Your task to perform on an android device: Clear all items from cart on walmart. Add "beats solo 3" to the cart on walmart, then select checkout. Image 0: 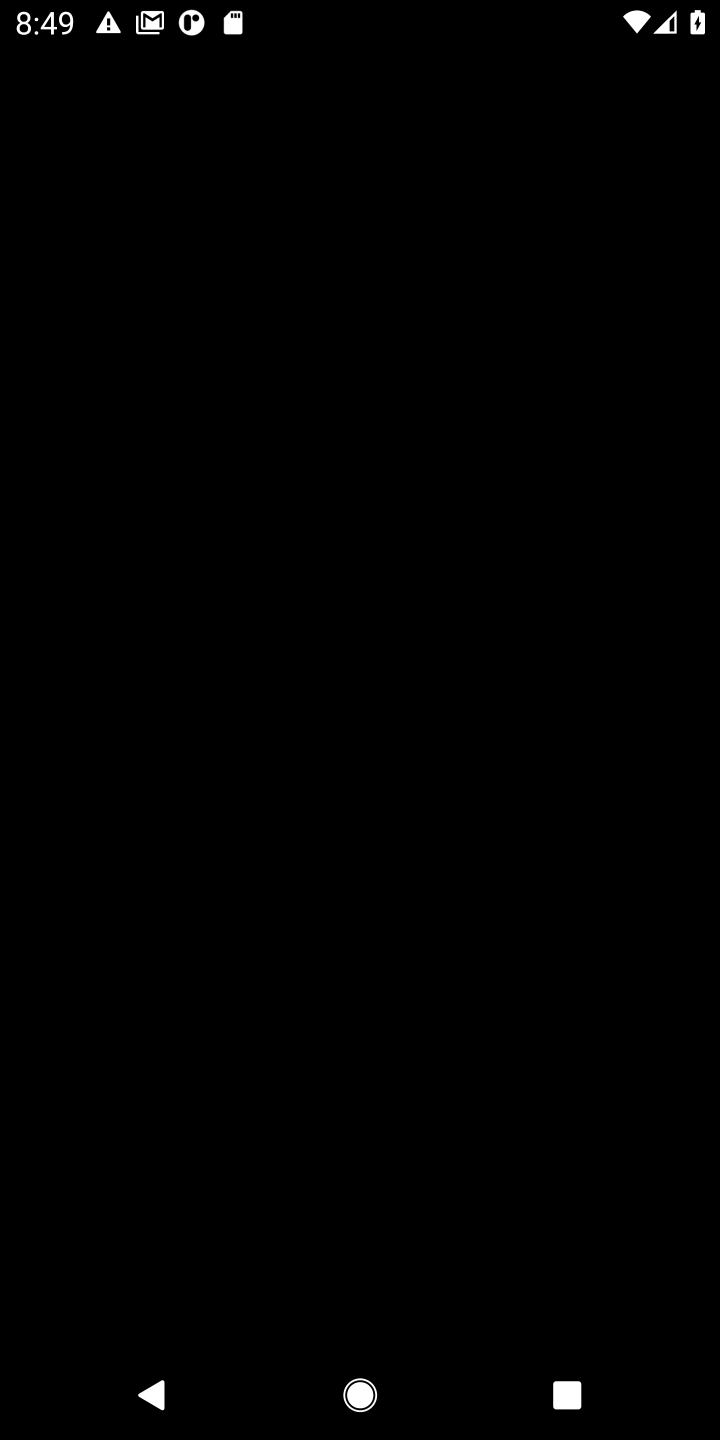
Step 0: press home button
Your task to perform on an android device: Clear all items from cart on walmart. Add "beats solo 3" to the cart on walmart, then select checkout. Image 1: 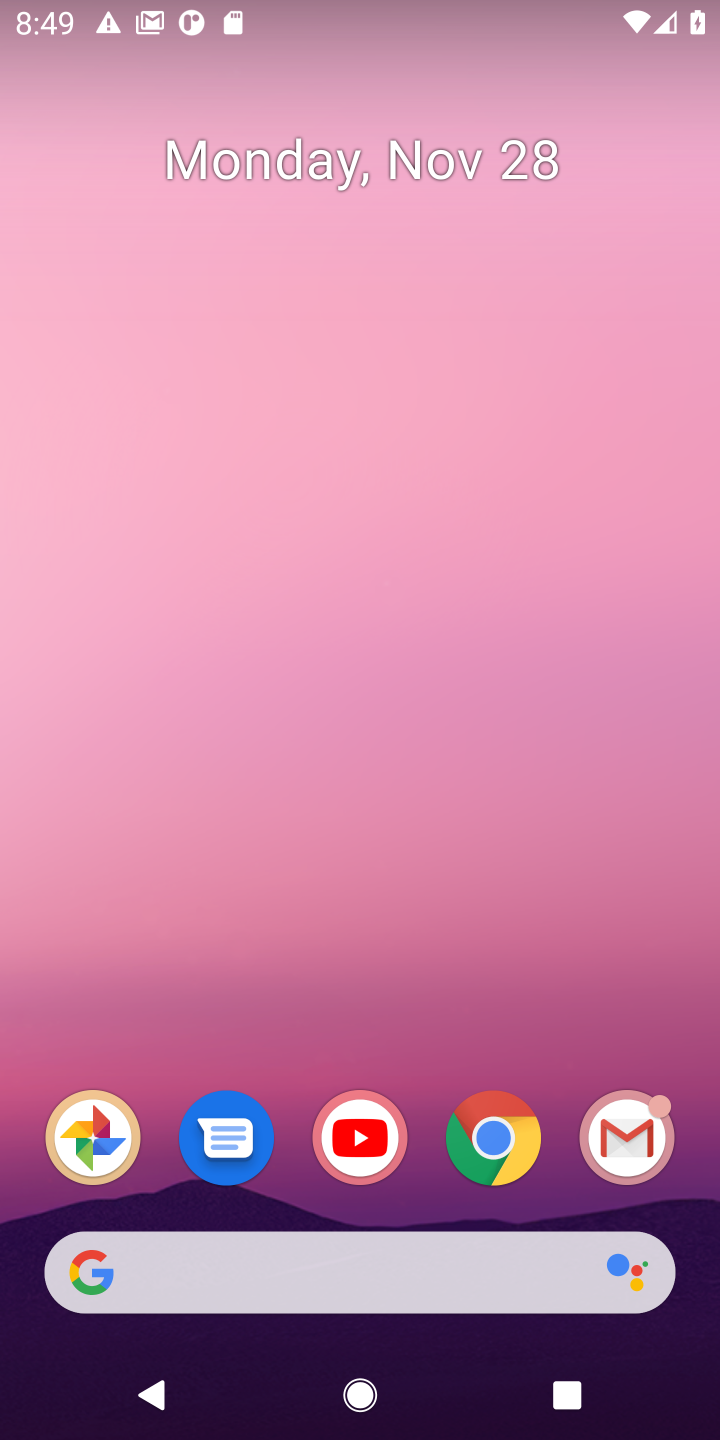
Step 1: click (479, 1142)
Your task to perform on an android device: Clear all items from cart on walmart. Add "beats solo 3" to the cart on walmart, then select checkout. Image 2: 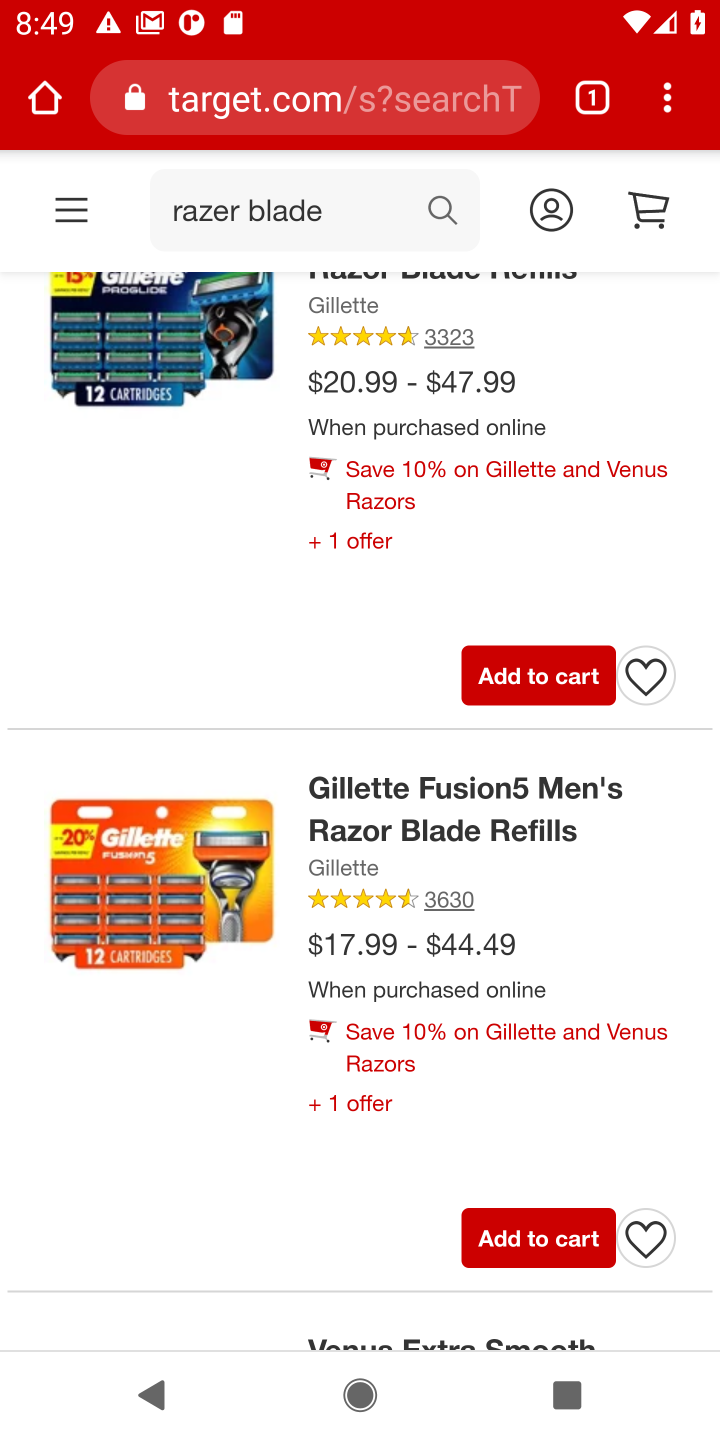
Step 2: click (354, 99)
Your task to perform on an android device: Clear all items from cart on walmart. Add "beats solo 3" to the cart on walmart, then select checkout. Image 3: 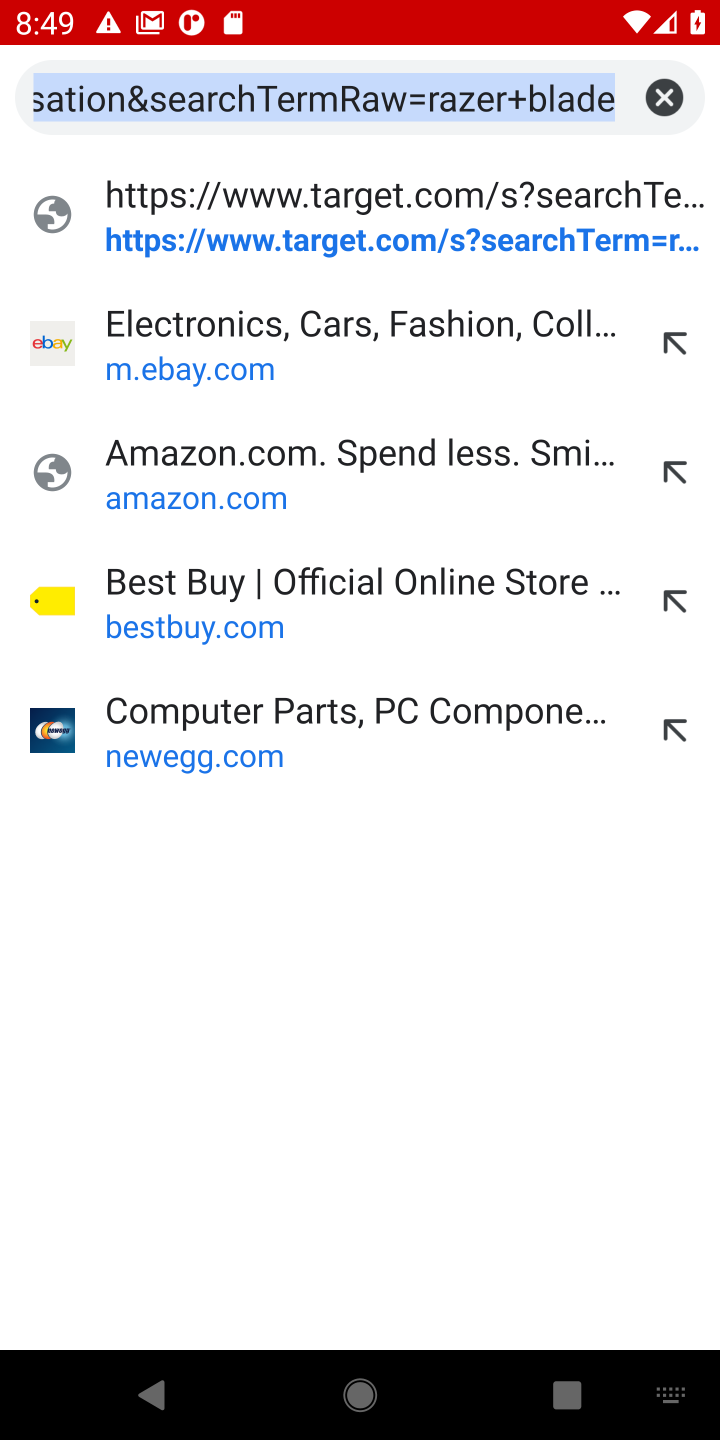
Step 3: type "walmart.com"
Your task to perform on an android device: Clear all items from cart on walmart. Add "beats solo 3" to the cart on walmart, then select checkout. Image 4: 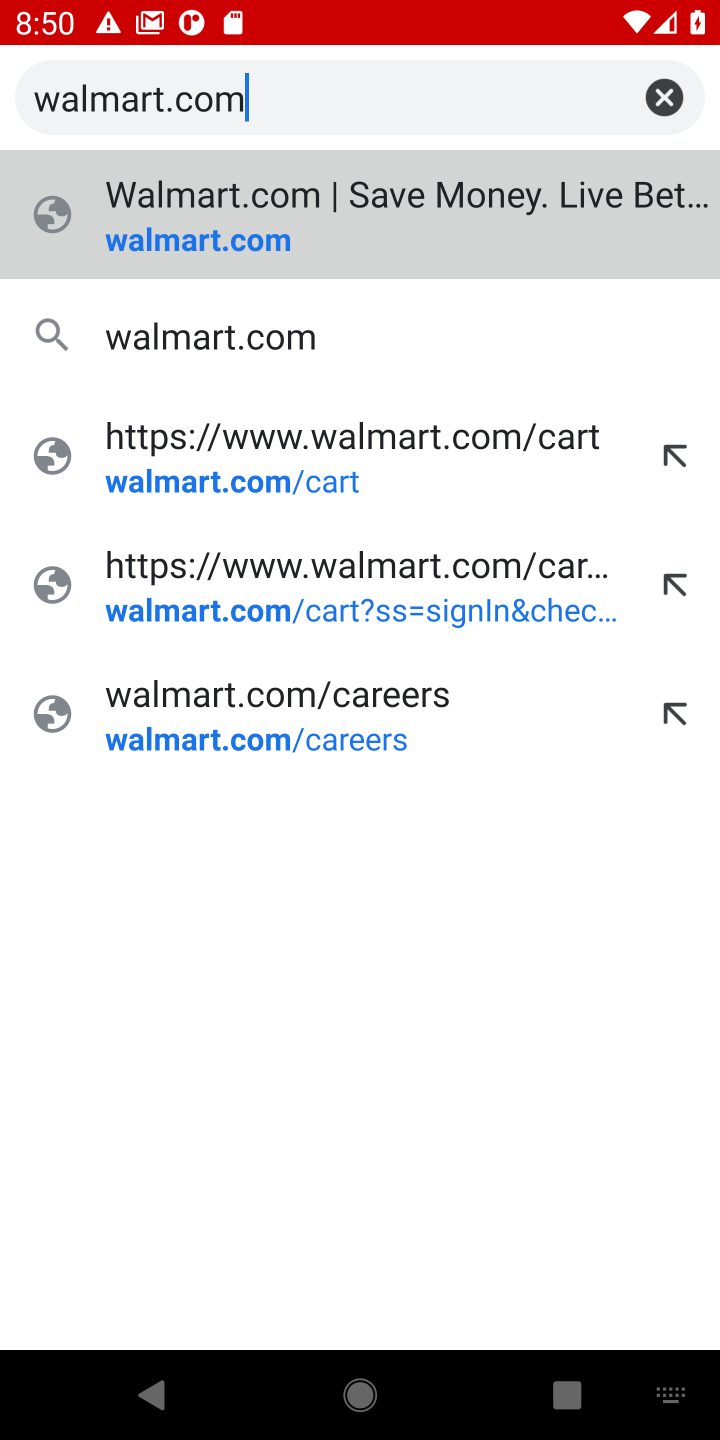
Step 4: click (185, 243)
Your task to perform on an android device: Clear all items from cart on walmart. Add "beats solo 3" to the cart on walmart, then select checkout. Image 5: 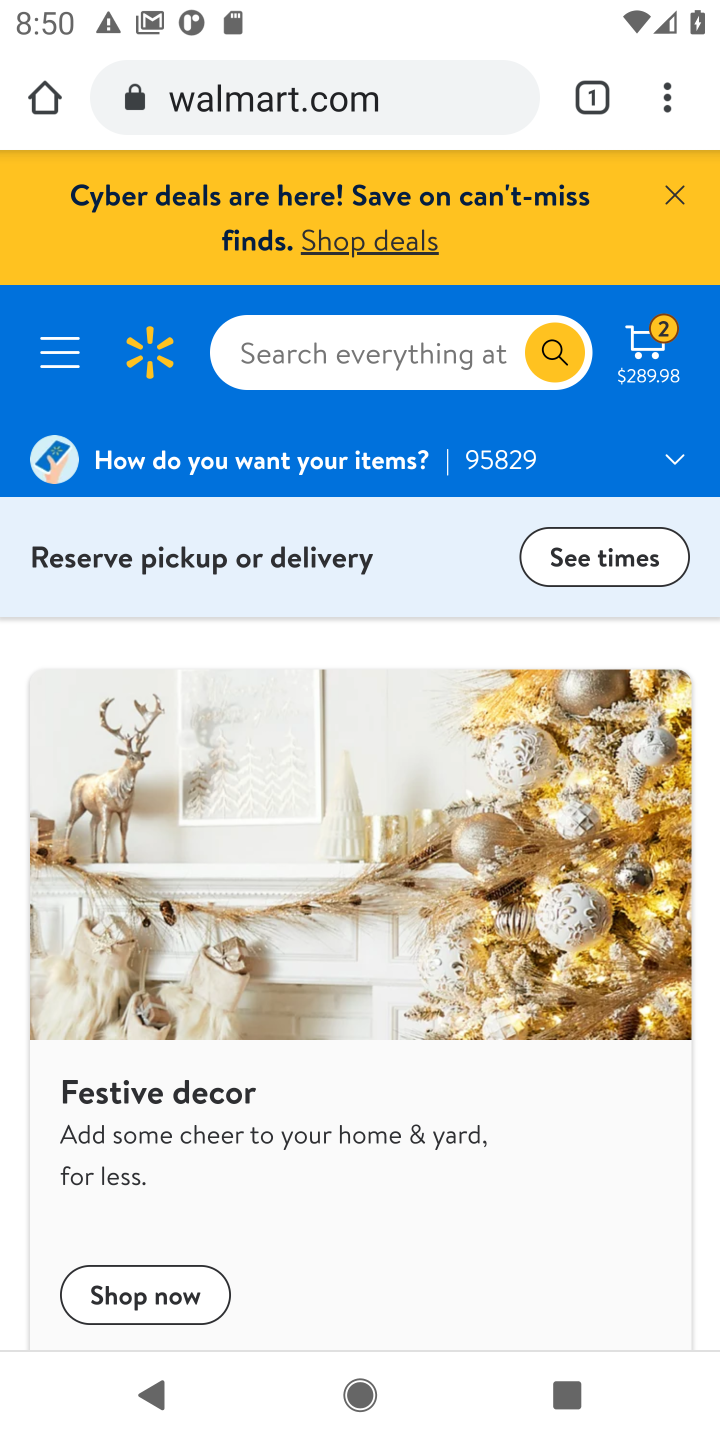
Step 5: click (640, 362)
Your task to perform on an android device: Clear all items from cart on walmart. Add "beats solo 3" to the cart on walmart, then select checkout. Image 6: 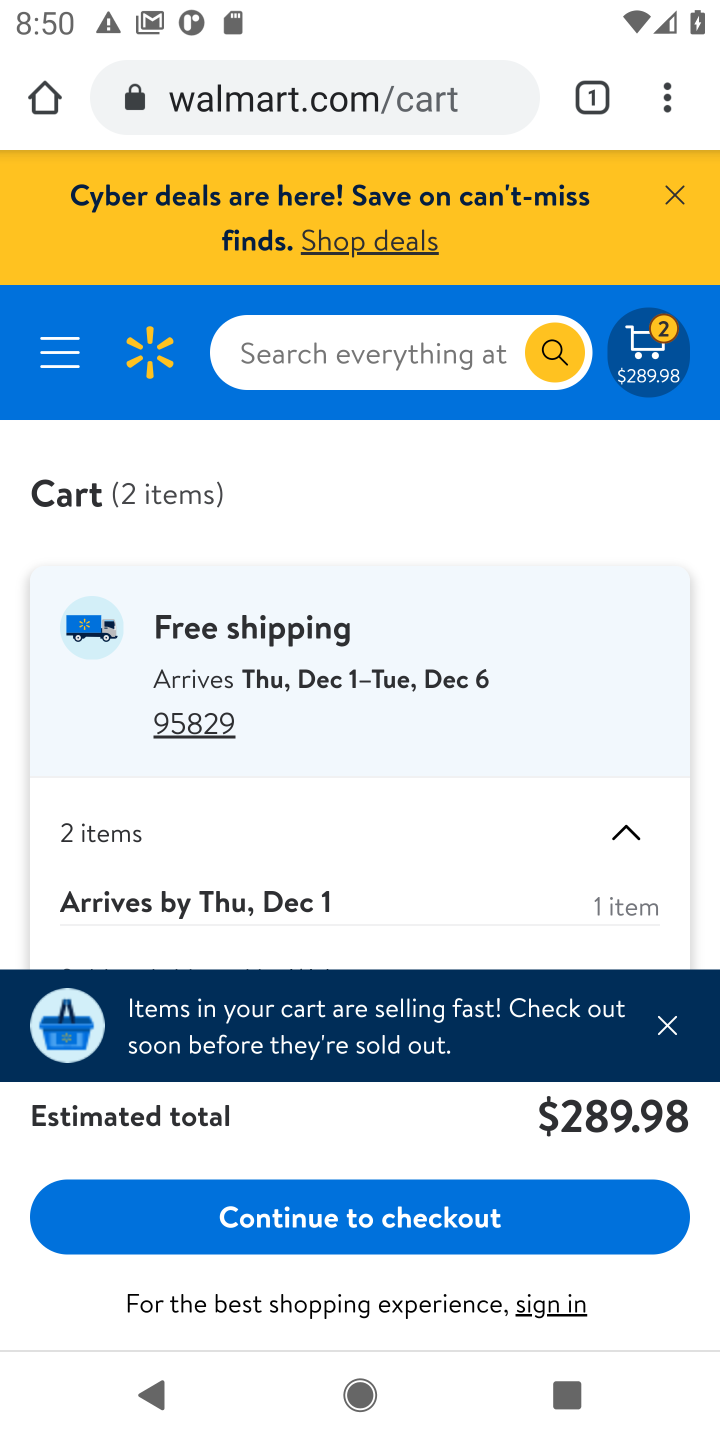
Step 6: drag from (302, 804) to (280, 448)
Your task to perform on an android device: Clear all items from cart on walmart. Add "beats solo 3" to the cart on walmart, then select checkout. Image 7: 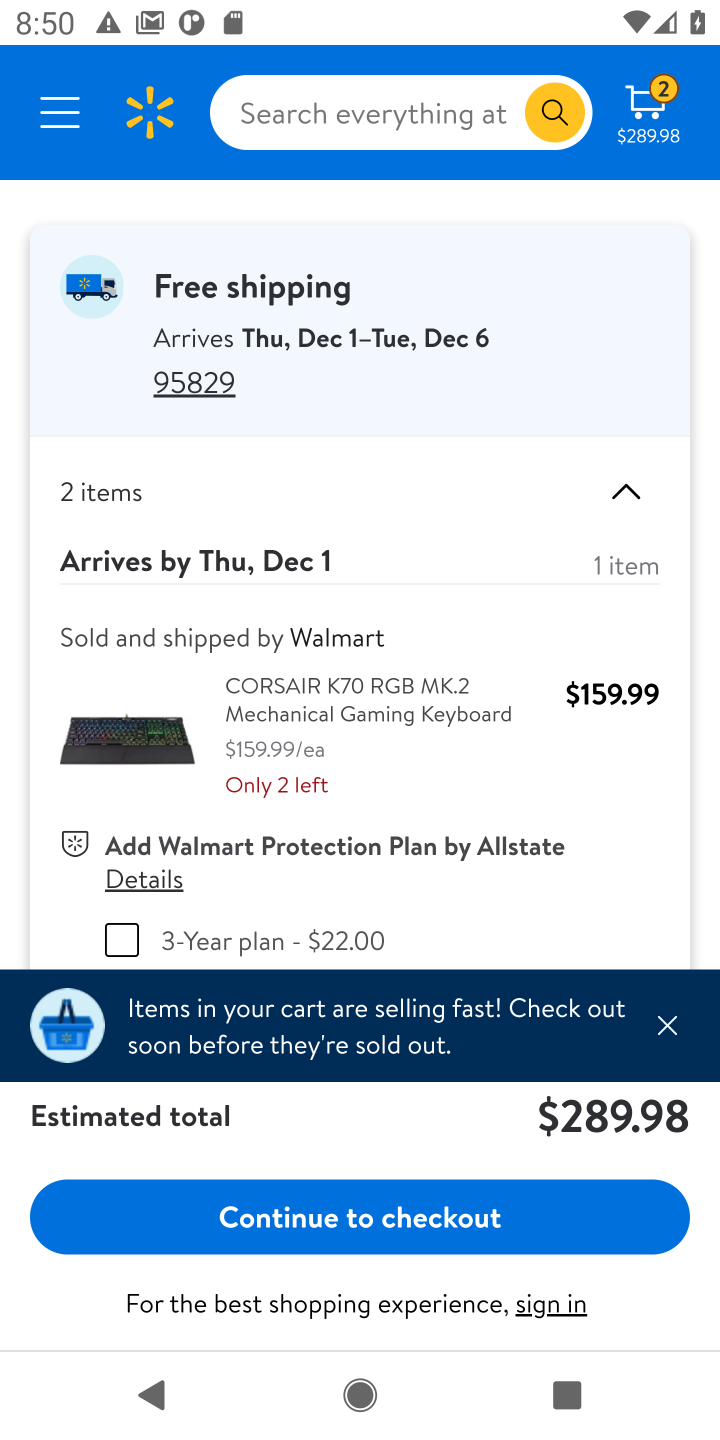
Step 7: drag from (309, 745) to (303, 418)
Your task to perform on an android device: Clear all items from cart on walmart. Add "beats solo 3" to the cart on walmart, then select checkout. Image 8: 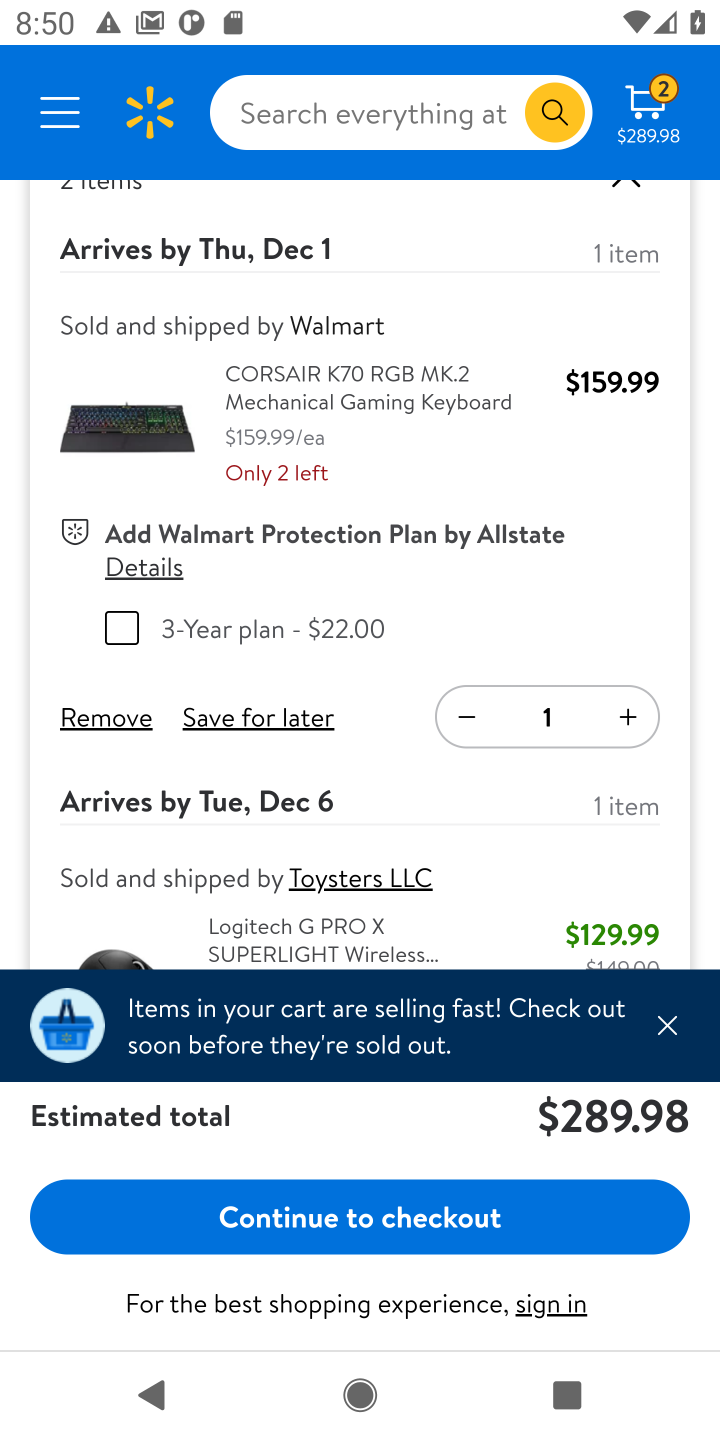
Step 8: click (93, 719)
Your task to perform on an android device: Clear all items from cart on walmart. Add "beats solo 3" to the cart on walmart, then select checkout. Image 9: 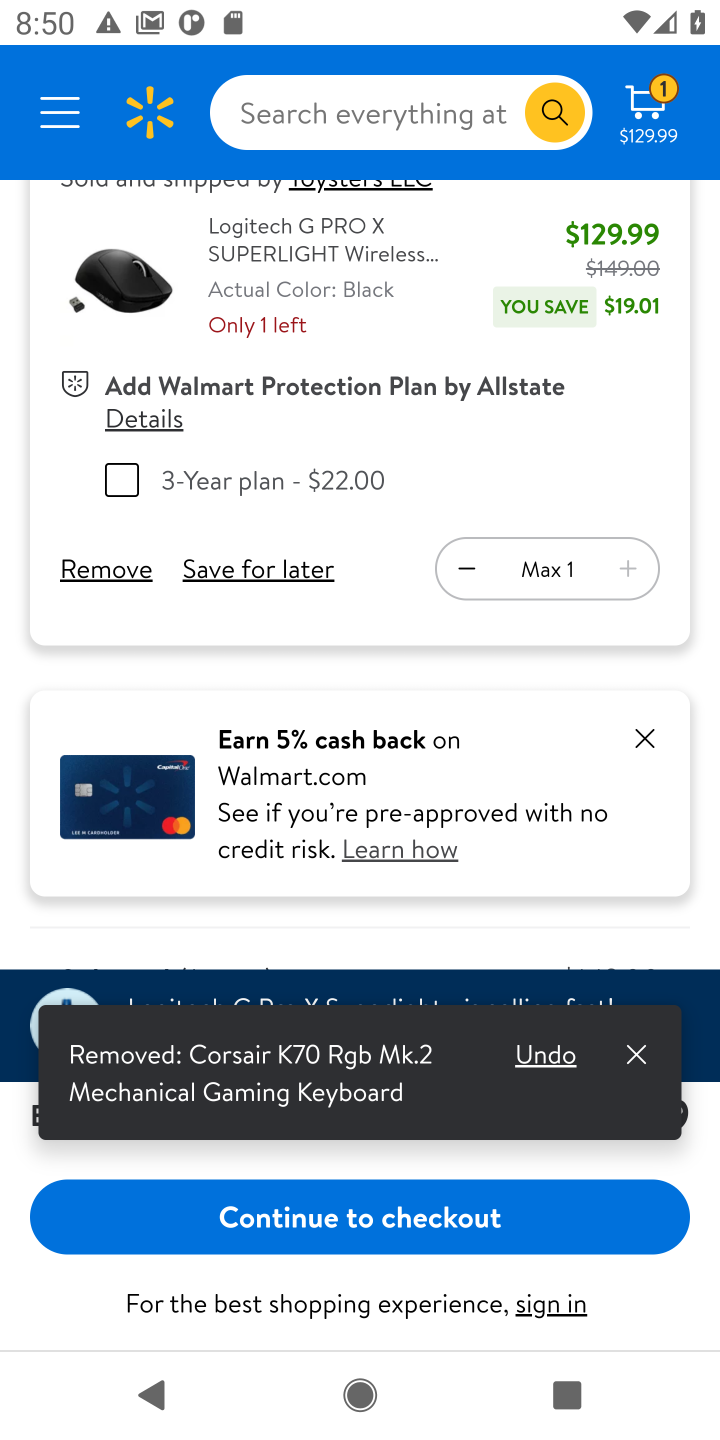
Step 9: click (90, 583)
Your task to perform on an android device: Clear all items from cart on walmart. Add "beats solo 3" to the cart on walmart, then select checkout. Image 10: 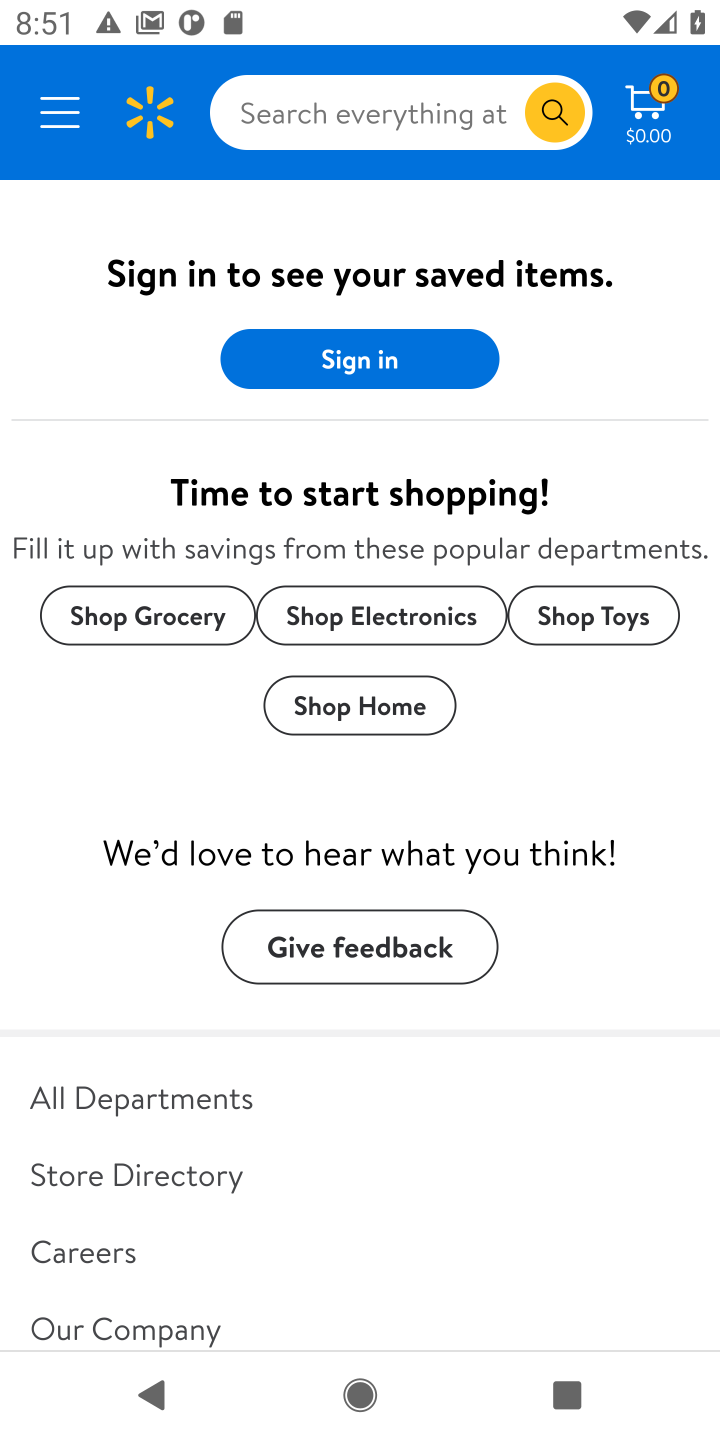
Step 10: click (283, 110)
Your task to perform on an android device: Clear all items from cart on walmart. Add "beats solo 3" to the cart on walmart, then select checkout. Image 11: 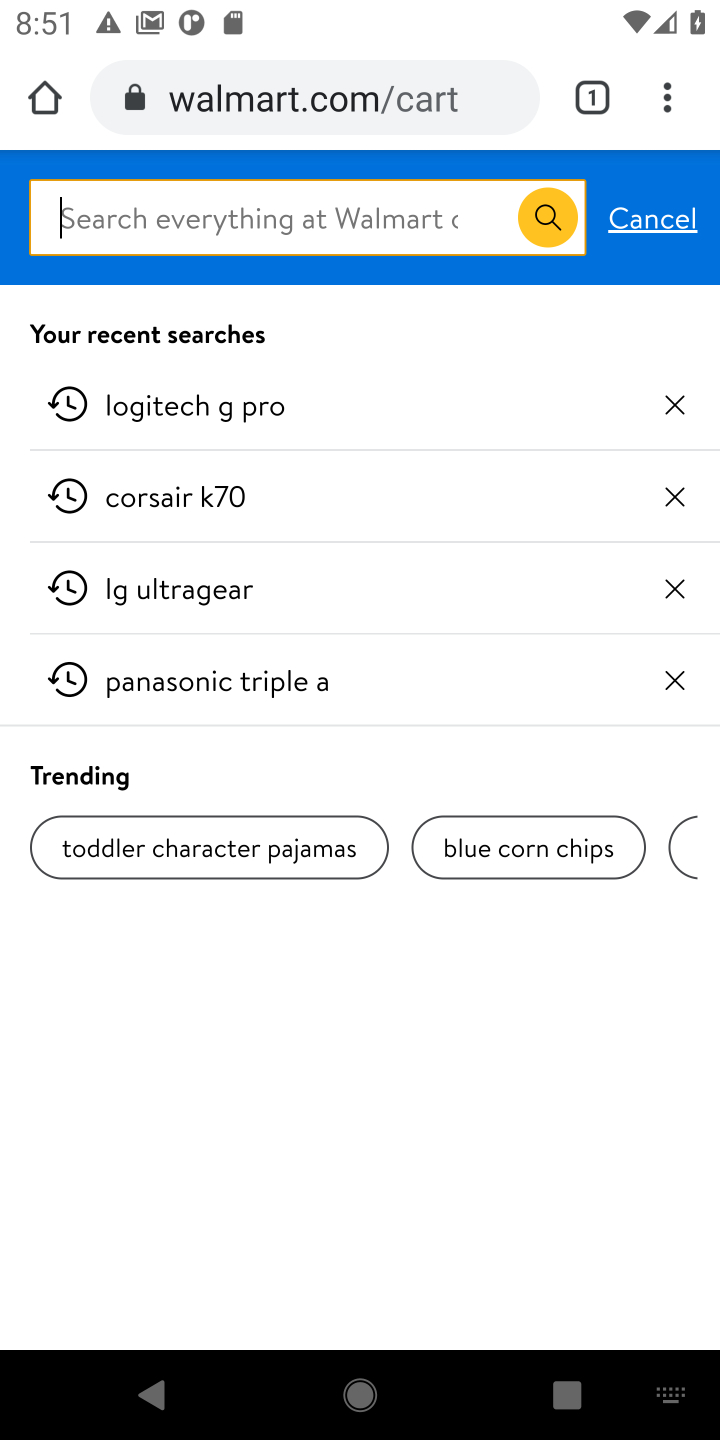
Step 11: type "beats solo 3"
Your task to perform on an android device: Clear all items from cart on walmart. Add "beats solo 3" to the cart on walmart, then select checkout. Image 12: 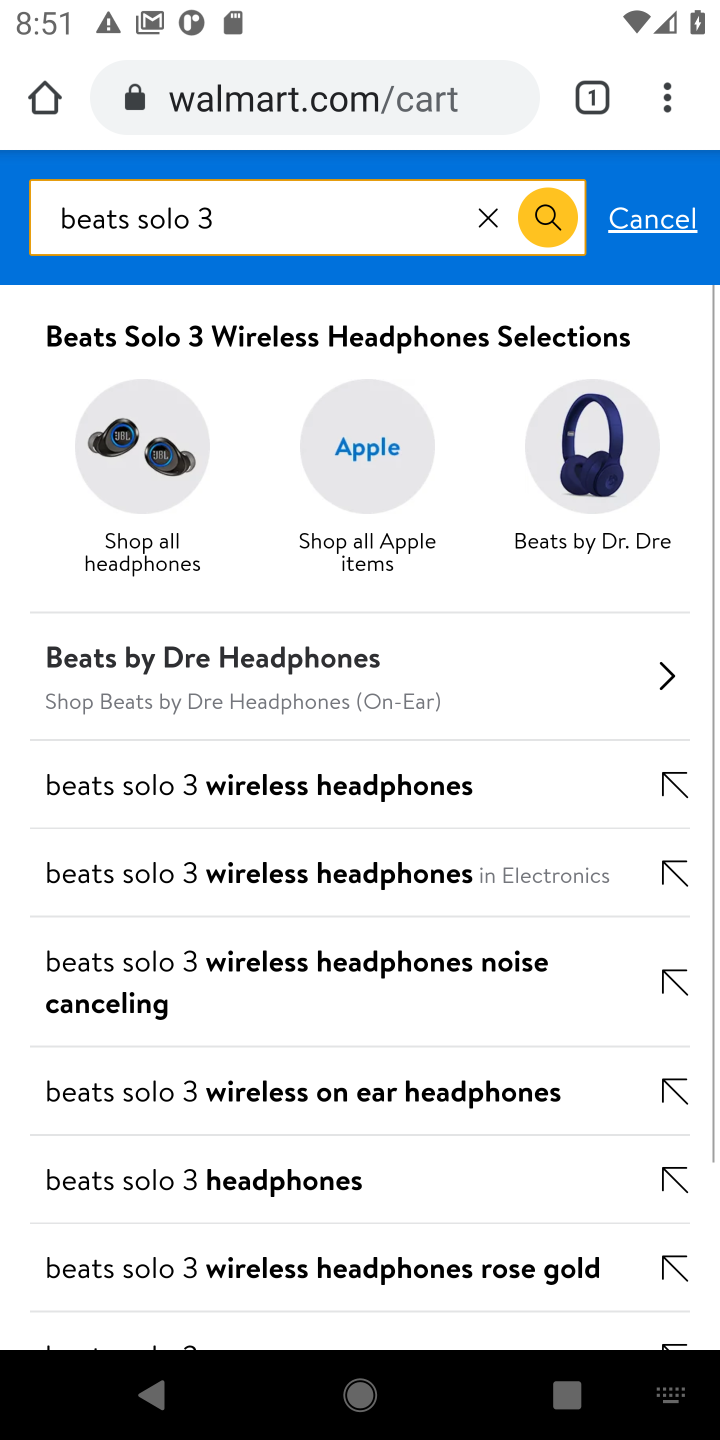
Step 12: click (221, 790)
Your task to perform on an android device: Clear all items from cart on walmart. Add "beats solo 3" to the cart on walmart, then select checkout. Image 13: 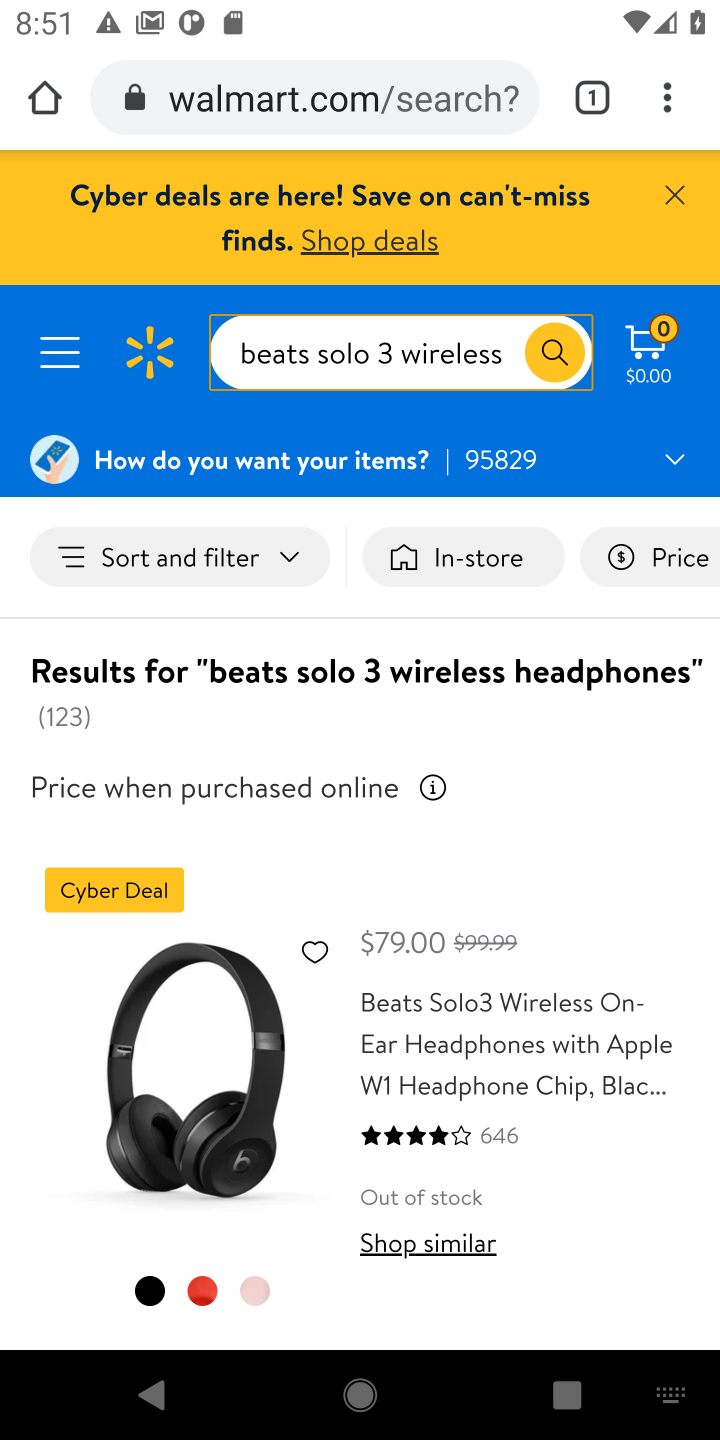
Step 13: drag from (296, 1036) to (281, 694)
Your task to perform on an android device: Clear all items from cart on walmart. Add "beats solo 3" to the cart on walmart, then select checkout. Image 14: 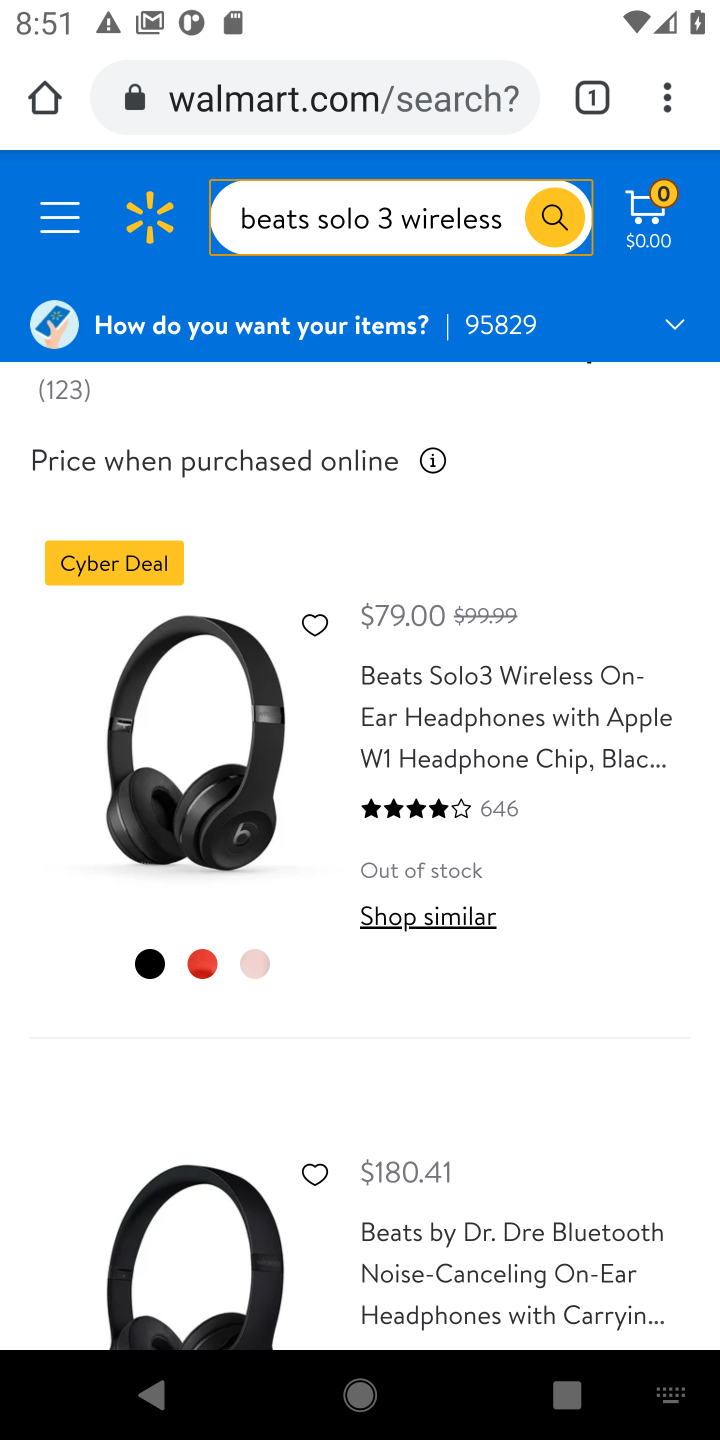
Step 14: drag from (276, 1181) to (258, 723)
Your task to perform on an android device: Clear all items from cart on walmart. Add "beats solo 3" to the cart on walmart, then select checkout. Image 15: 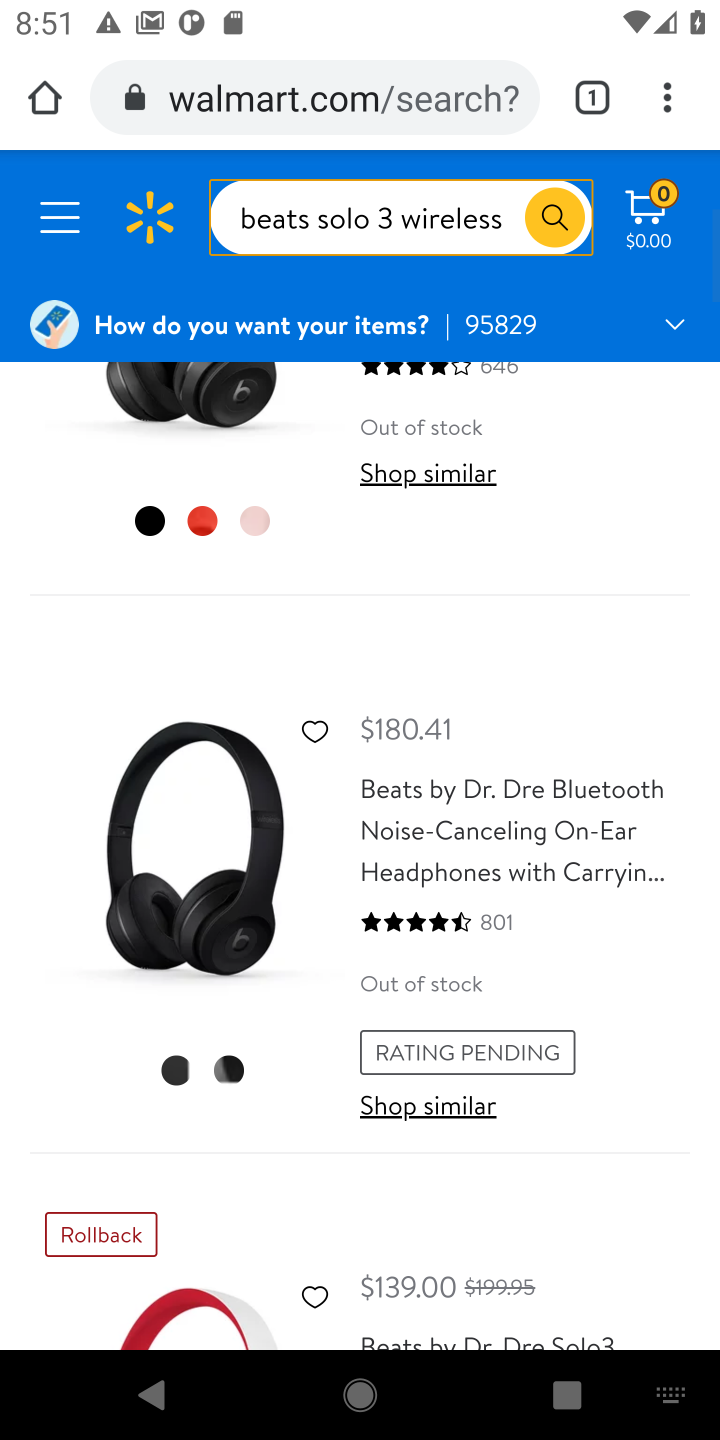
Step 15: drag from (273, 1215) to (242, 638)
Your task to perform on an android device: Clear all items from cart on walmart. Add "beats solo 3" to the cart on walmart, then select checkout. Image 16: 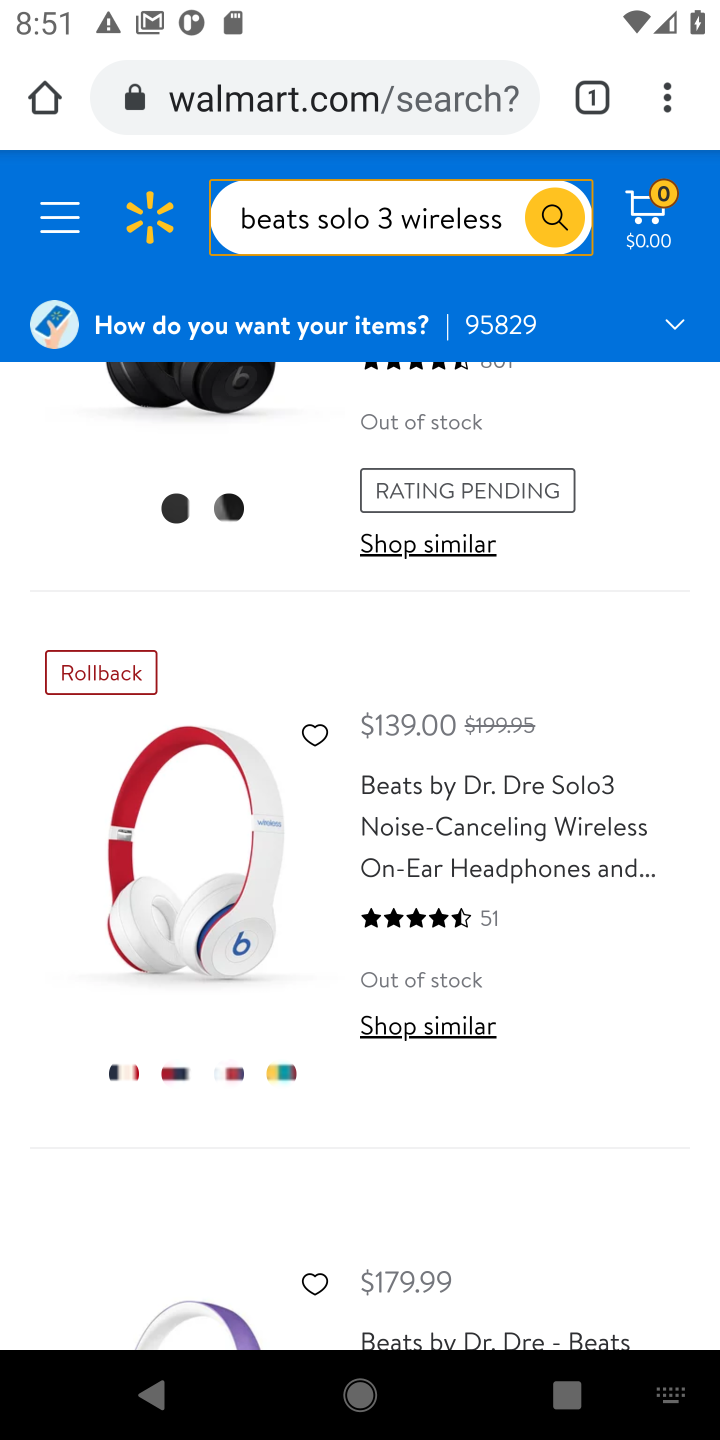
Step 16: drag from (247, 1115) to (153, 541)
Your task to perform on an android device: Clear all items from cart on walmart. Add "beats solo 3" to the cart on walmart, then select checkout. Image 17: 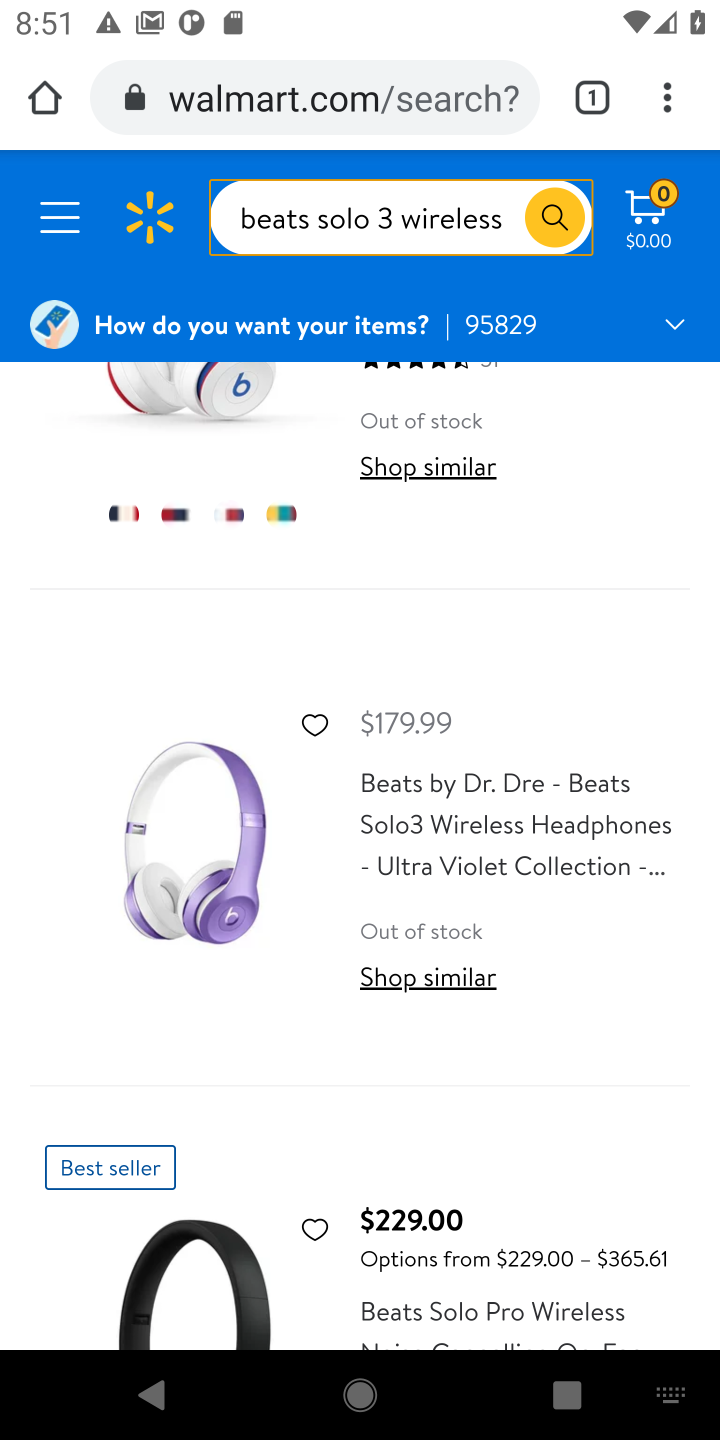
Step 17: drag from (230, 1060) to (236, 647)
Your task to perform on an android device: Clear all items from cart on walmart. Add "beats solo 3" to the cart on walmart, then select checkout. Image 18: 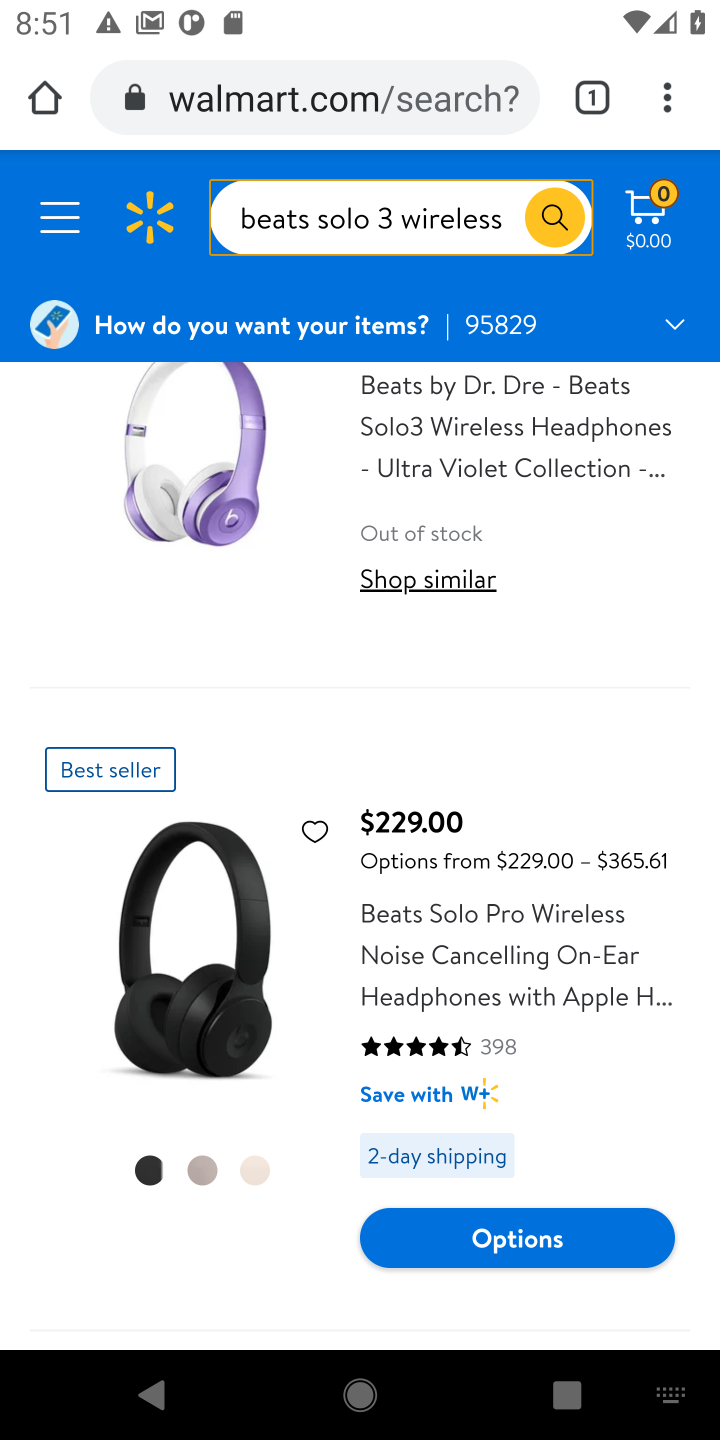
Step 18: drag from (308, 1038) to (262, 511)
Your task to perform on an android device: Clear all items from cart on walmart. Add "beats solo 3" to the cart on walmart, then select checkout. Image 19: 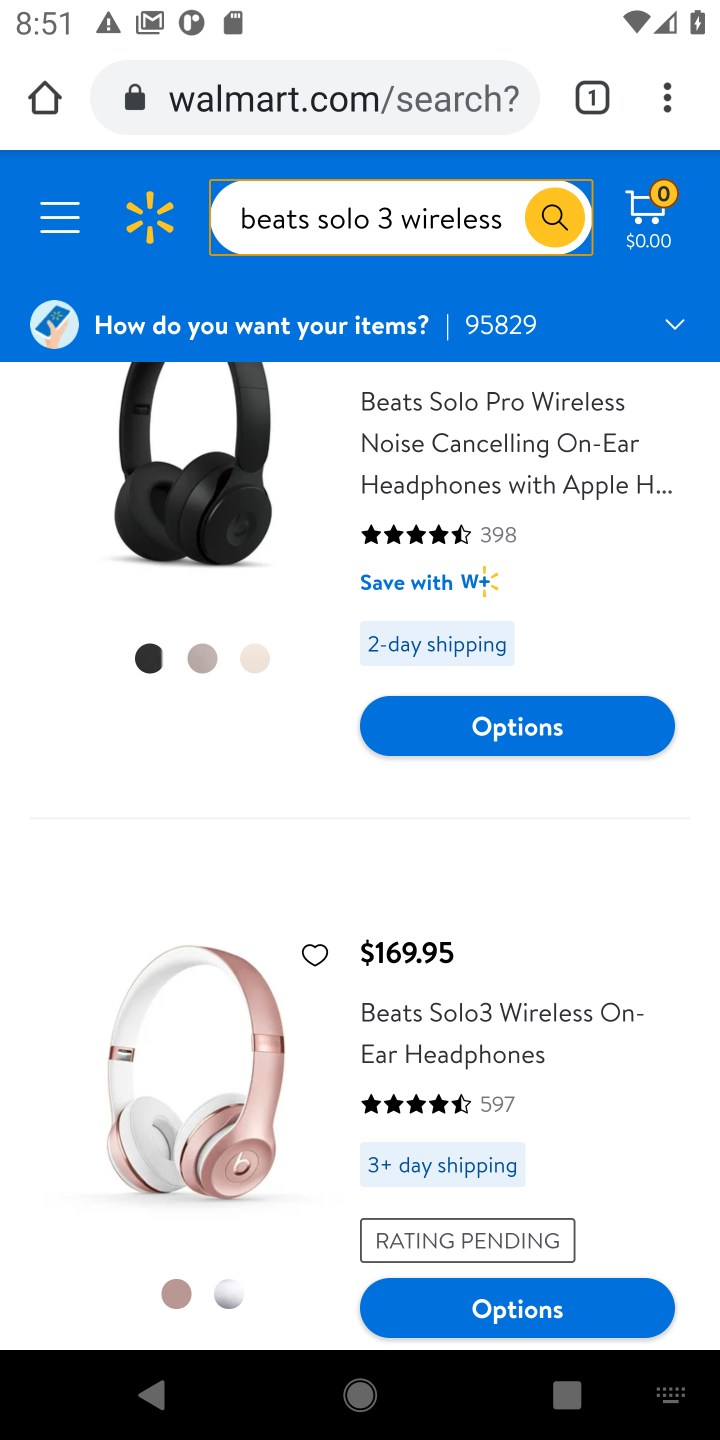
Step 19: drag from (311, 1024) to (300, 711)
Your task to perform on an android device: Clear all items from cart on walmart. Add "beats solo 3" to the cart on walmart, then select checkout. Image 20: 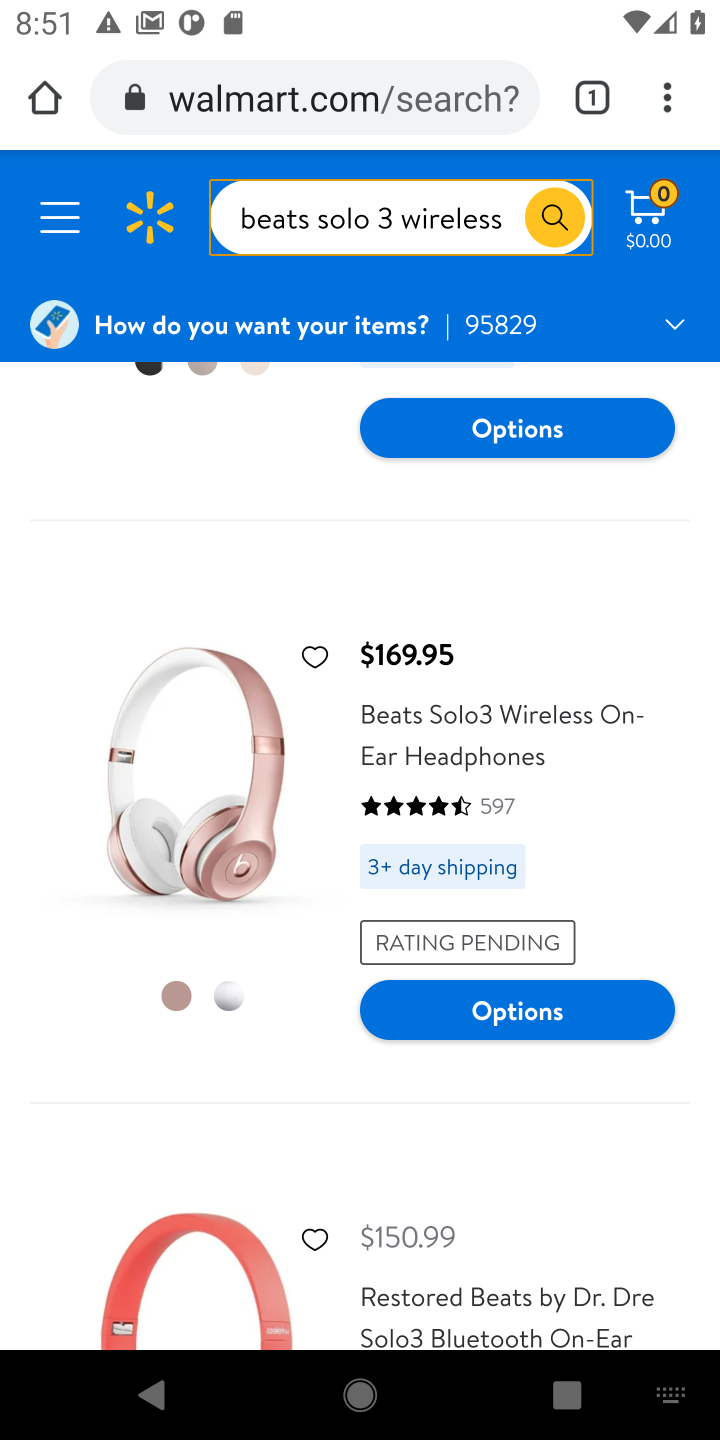
Step 20: click (409, 759)
Your task to perform on an android device: Clear all items from cart on walmart. Add "beats solo 3" to the cart on walmart, then select checkout. Image 21: 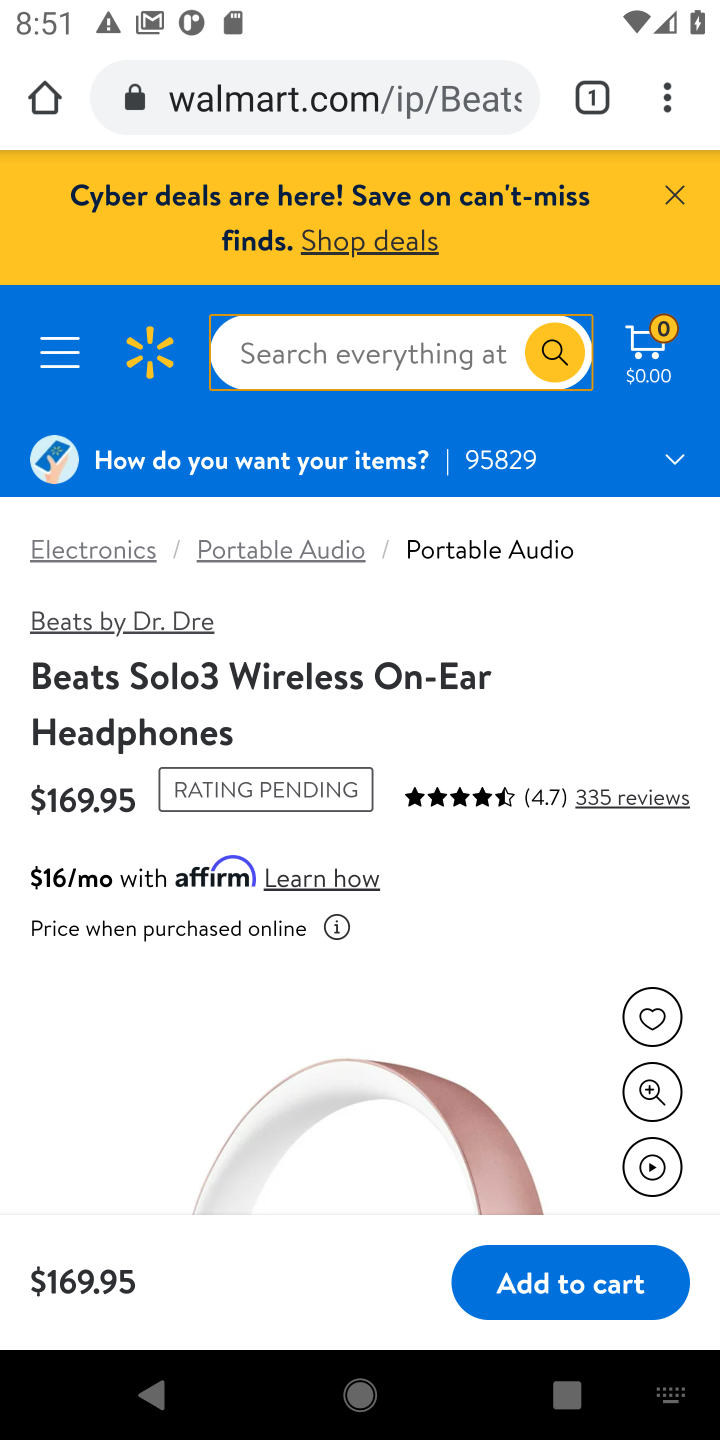
Step 21: click (561, 1301)
Your task to perform on an android device: Clear all items from cart on walmart. Add "beats solo 3" to the cart on walmart, then select checkout. Image 22: 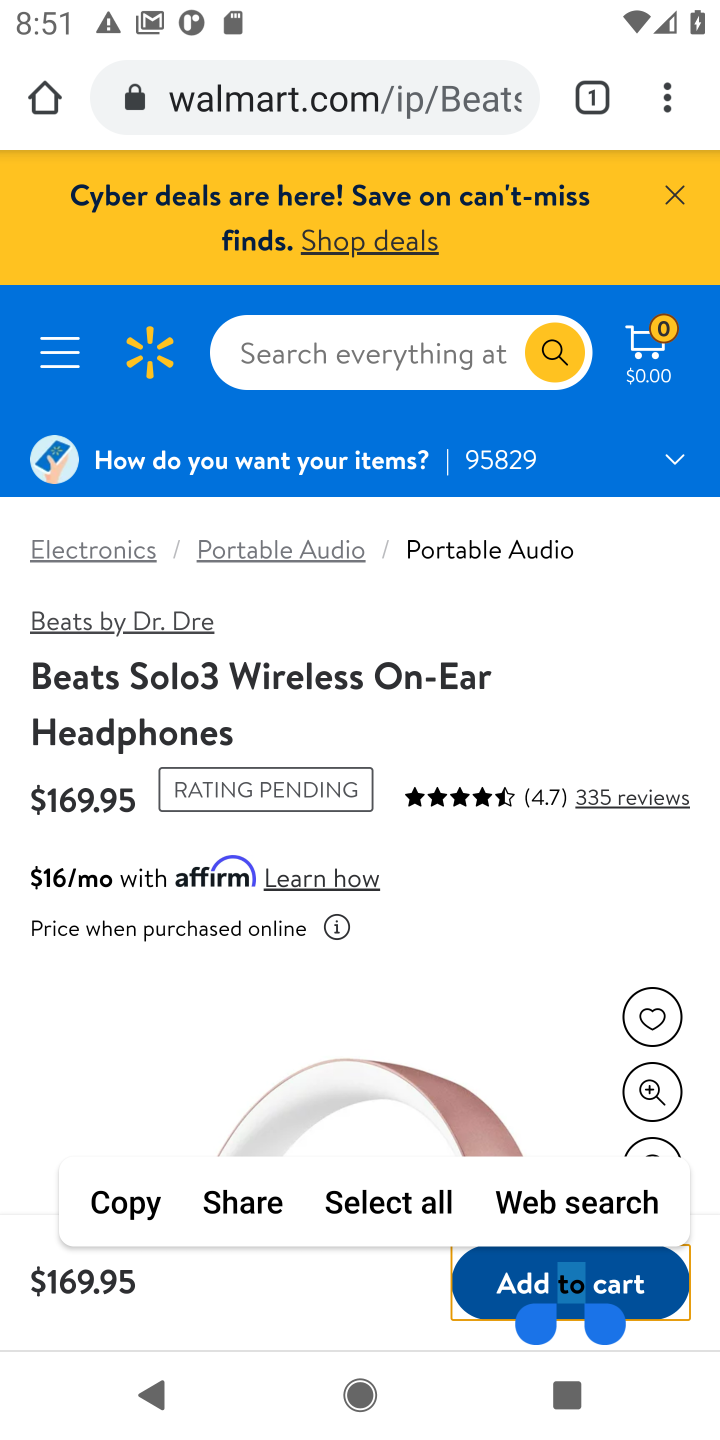
Step 22: click (602, 1276)
Your task to perform on an android device: Clear all items from cart on walmart. Add "beats solo 3" to the cart on walmart, then select checkout. Image 23: 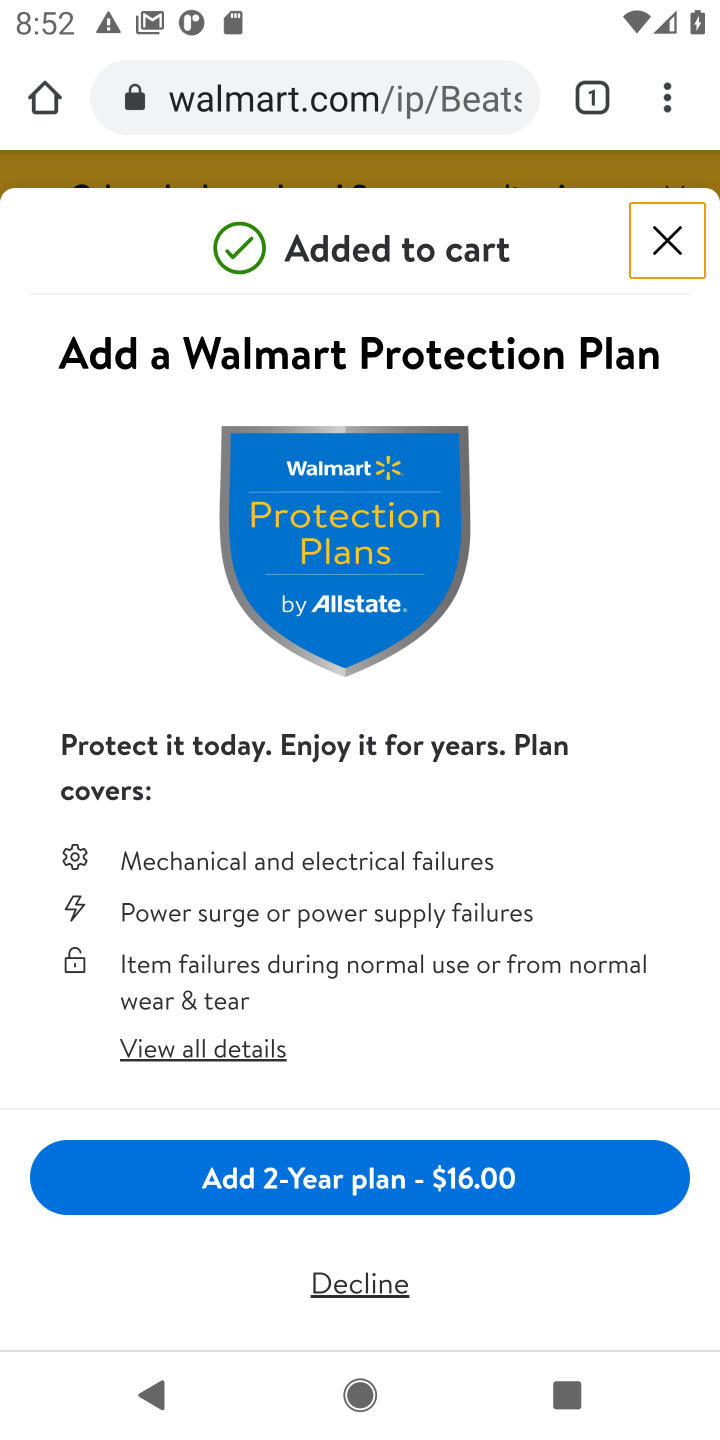
Step 23: click (660, 243)
Your task to perform on an android device: Clear all items from cart on walmart. Add "beats solo 3" to the cart on walmart, then select checkout. Image 24: 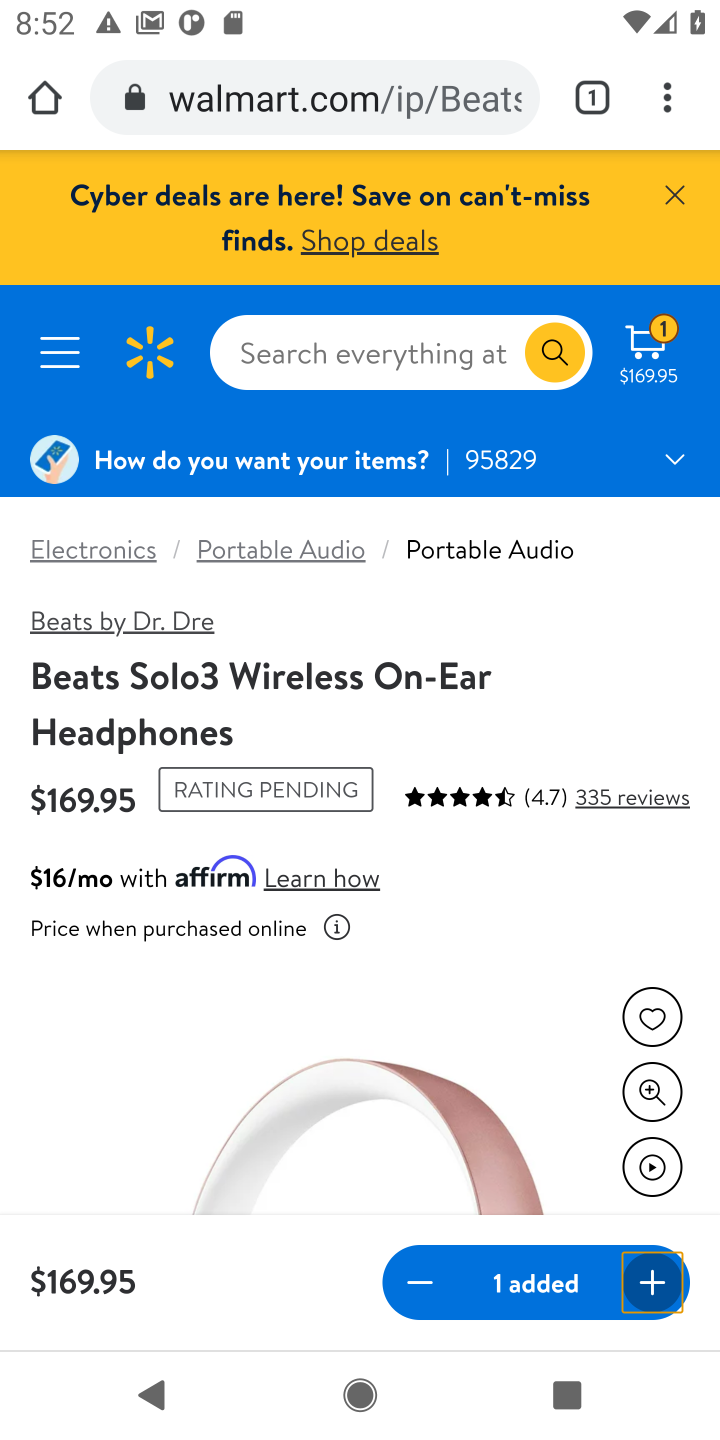
Step 24: click (645, 364)
Your task to perform on an android device: Clear all items from cart on walmart. Add "beats solo 3" to the cart on walmart, then select checkout. Image 25: 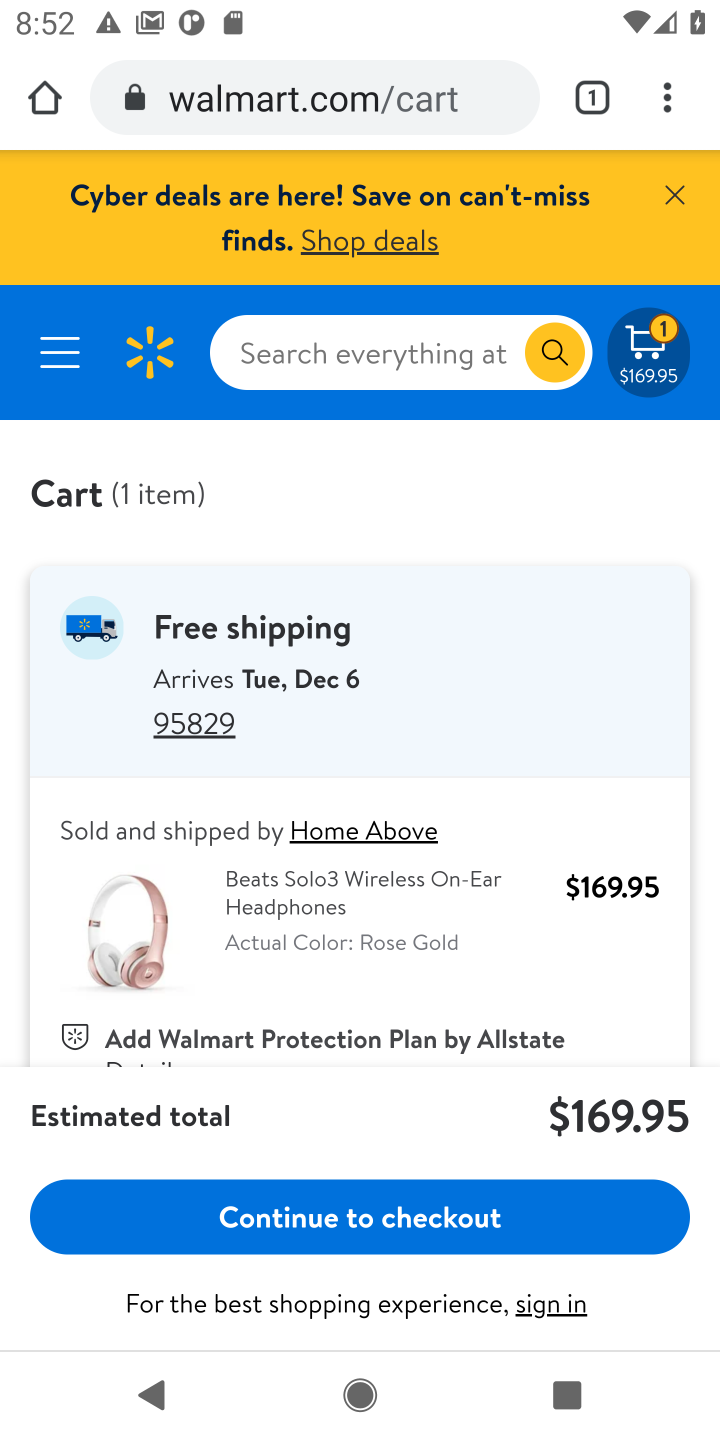
Step 25: click (371, 1202)
Your task to perform on an android device: Clear all items from cart on walmart. Add "beats solo 3" to the cart on walmart, then select checkout. Image 26: 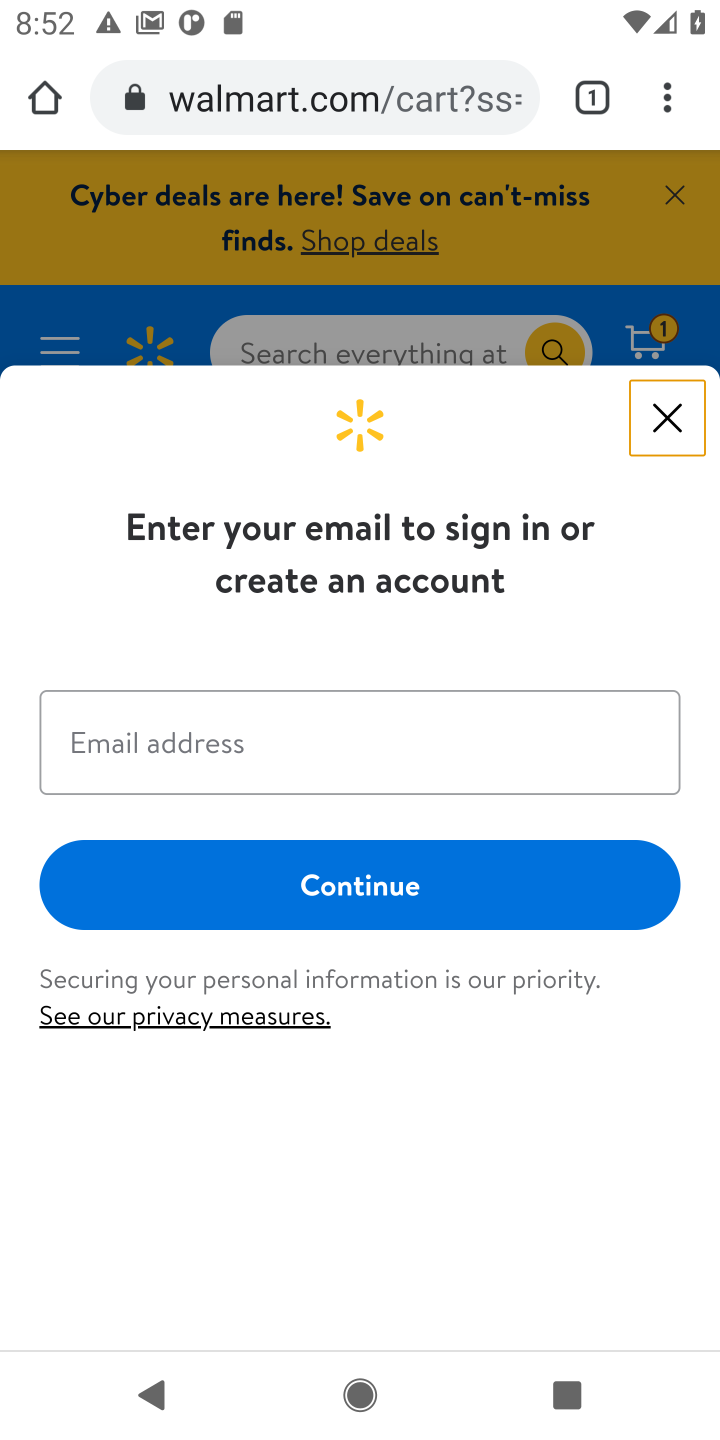
Step 26: task complete